Your task to perform on an android device: What is the recent news? Image 0: 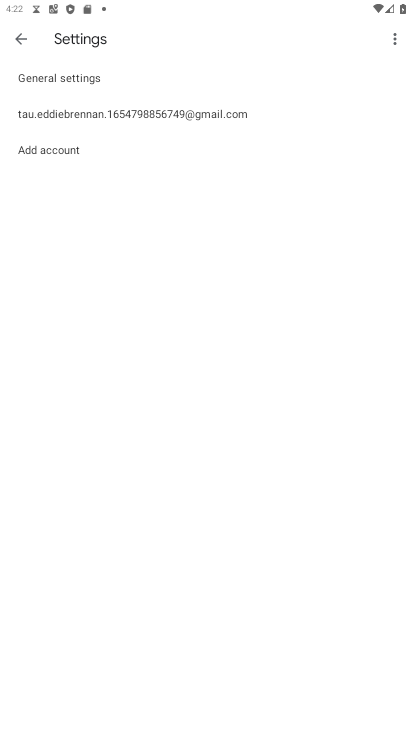
Step 0: press home button
Your task to perform on an android device: What is the recent news? Image 1: 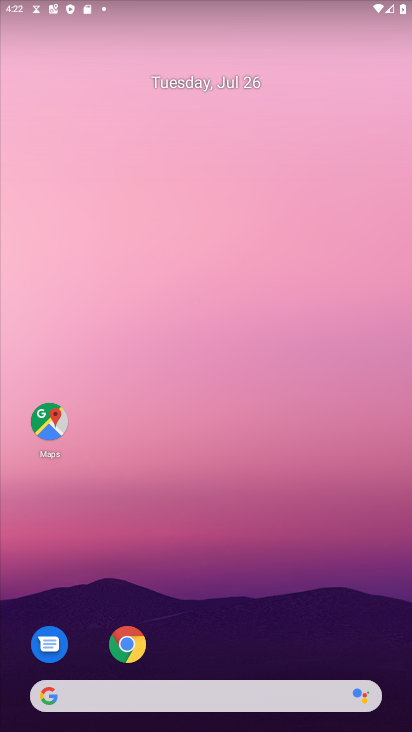
Step 1: click (125, 642)
Your task to perform on an android device: What is the recent news? Image 2: 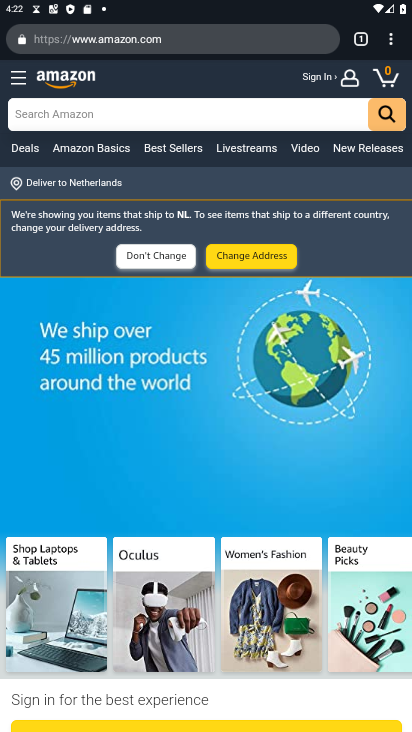
Step 2: click (188, 39)
Your task to perform on an android device: What is the recent news? Image 3: 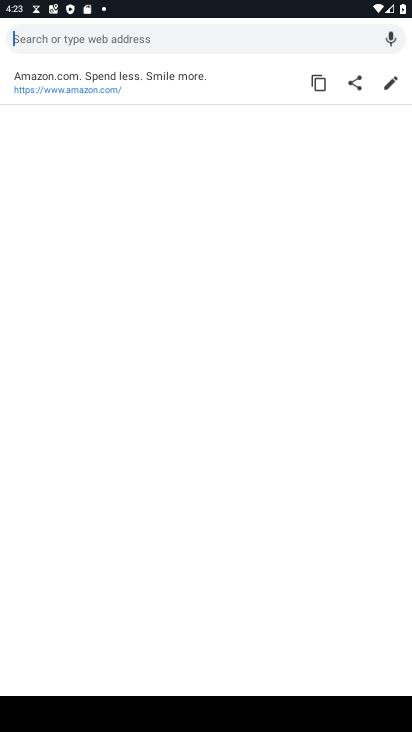
Step 3: type "What is the recent news?"
Your task to perform on an android device: What is the recent news? Image 4: 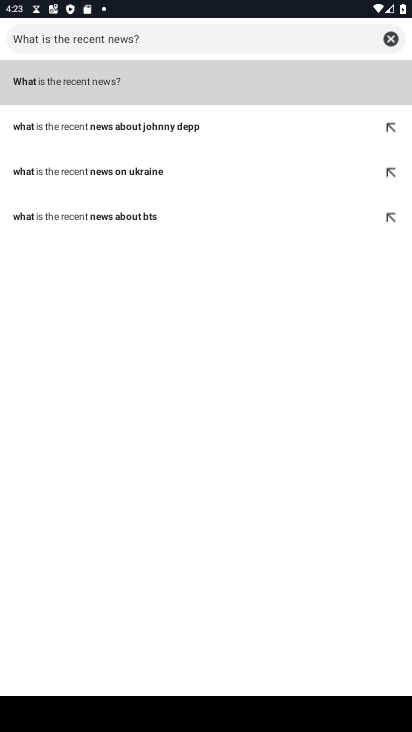
Step 4: click (280, 83)
Your task to perform on an android device: What is the recent news? Image 5: 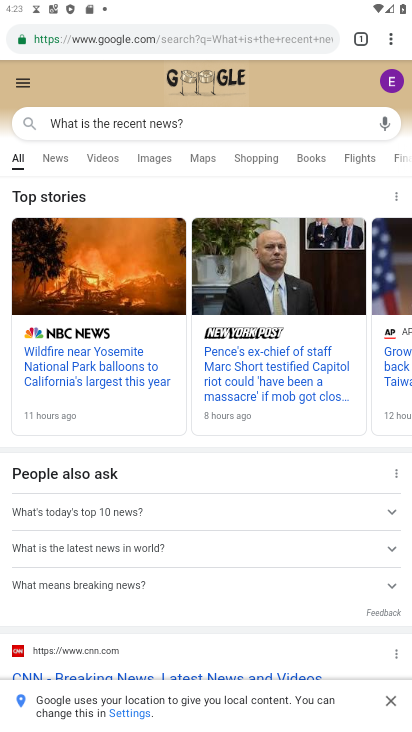
Step 5: task complete